Your task to perform on an android device: turn off improve location accuracy Image 0: 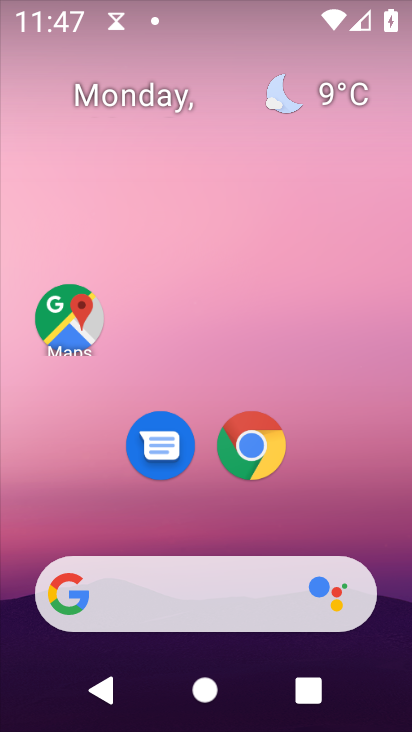
Step 0: drag from (202, 458) to (253, 5)
Your task to perform on an android device: turn off improve location accuracy Image 1: 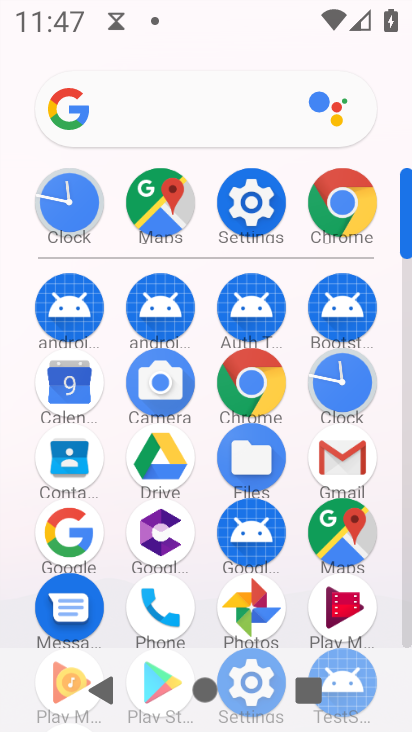
Step 1: click (257, 239)
Your task to perform on an android device: turn off improve location accuracy Image 2: 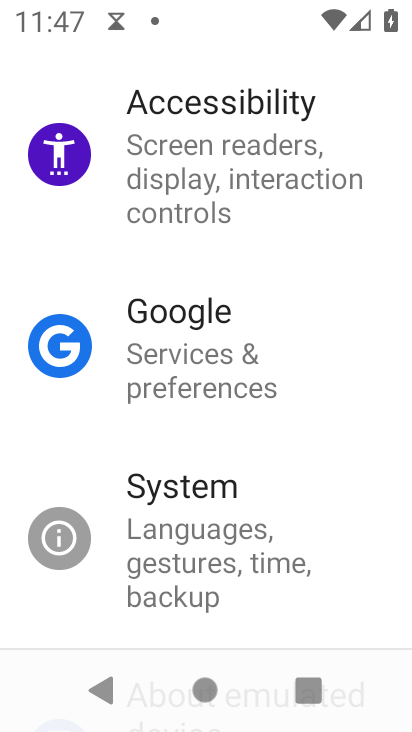
Step 2: drag from (285, 220) to (273, 633)
Your task to perform on an android device: turn off improve location accuracy Image 3: 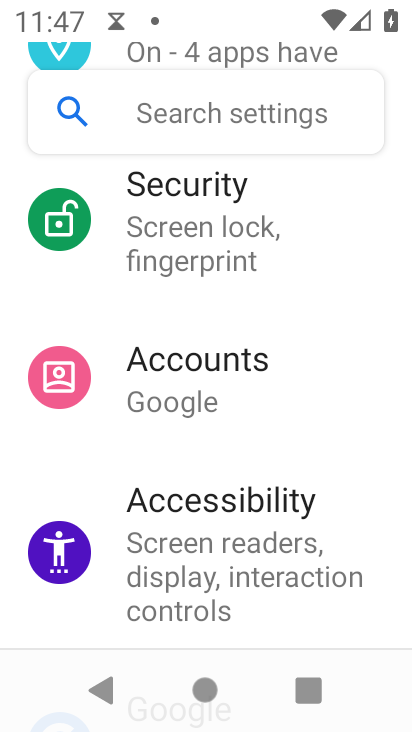
Step 3: drag from (257, 324) to (239, 696)
Your task to perform on an android device: turn off improve location accuracy Image 4: 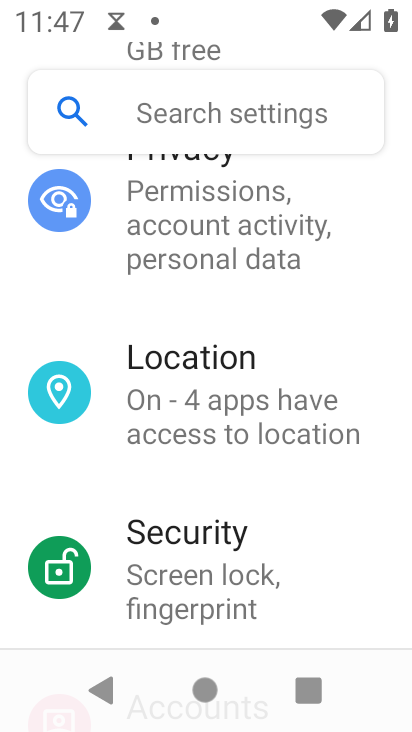
Step 4: click (211, 384)
Your task to perform on an android device: turn off improve location accuracy Image 5: 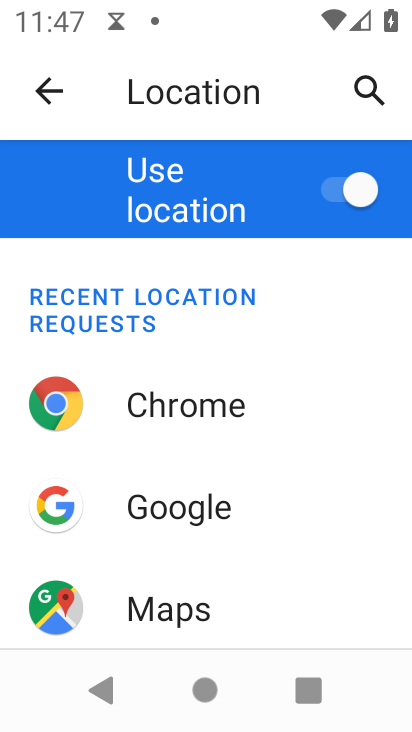
Step 5: drag from (257, 580) to (288, 54)
Your task to perform on an android device: turn off improve location accuracy Image 6: 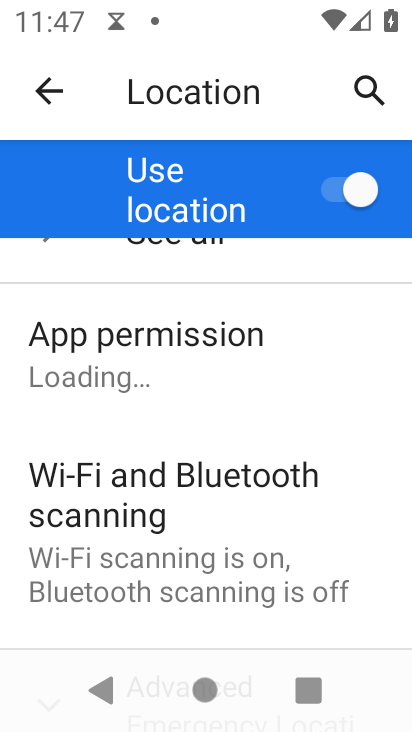
Step 6: drag from (290, 546) to (301, 122)
Your task to perform on an android device: turn off improve location accuracy Image 7: 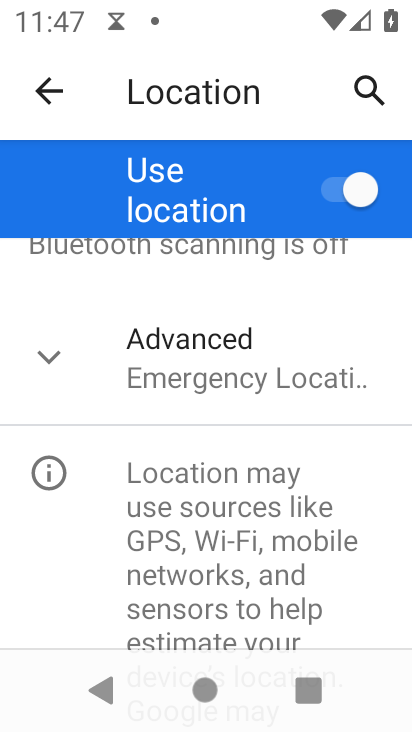
Step 7: click (235, 379)
Your task to perform on an android device: turn off improve location accuracy Image 8: 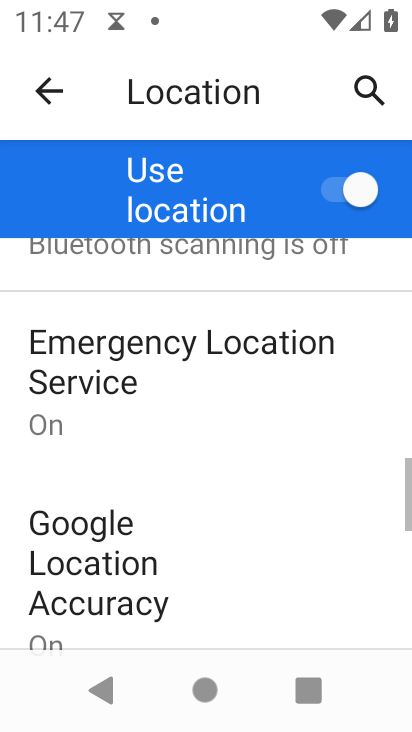
Step 8: drag from (203, 637) to (254, 371)
Your task to perform on an android device: turn off improve location accuracy Image 9: 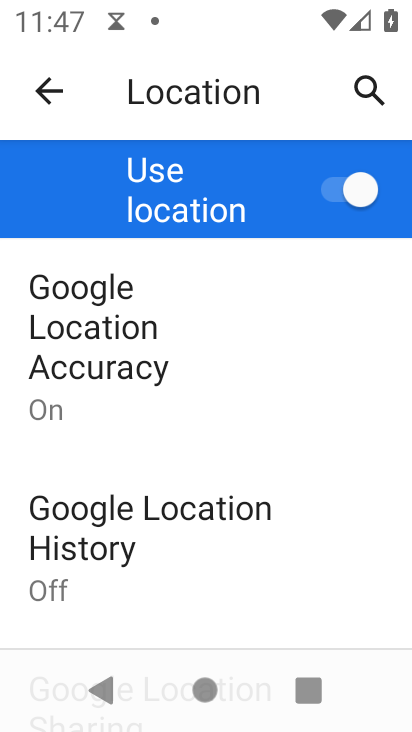
Step 9: click (209, 375)
Your task to perform on an android device: turn off improve location accuracy Image 10: 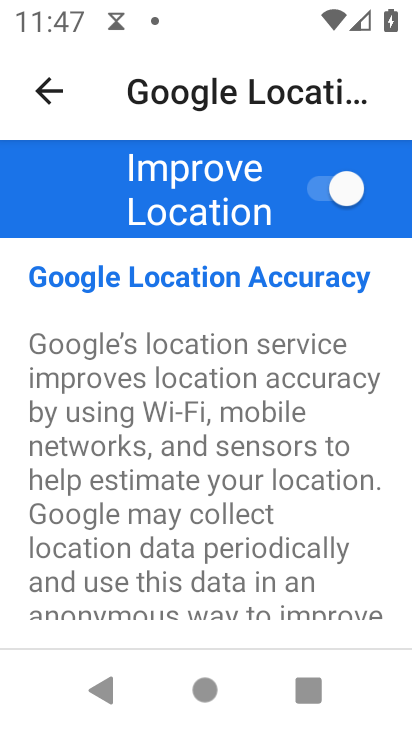
Step 10: click (324, 181)
Your task to perform on an android device: turn off improve location accuracy Image 11: 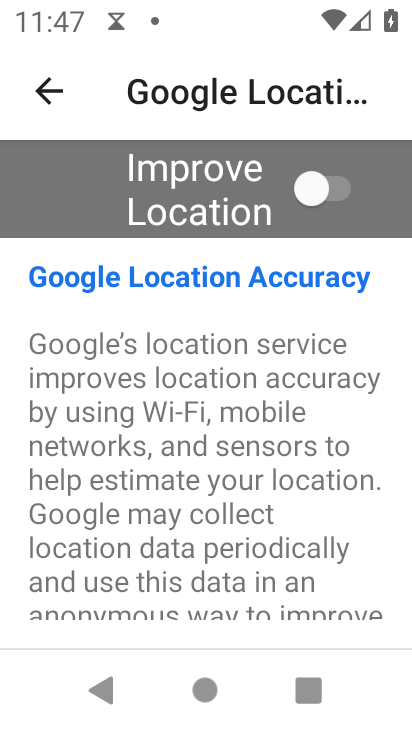
Step 11: task complete